Your task to perform on an android device: Open Google Chrome Image 0: 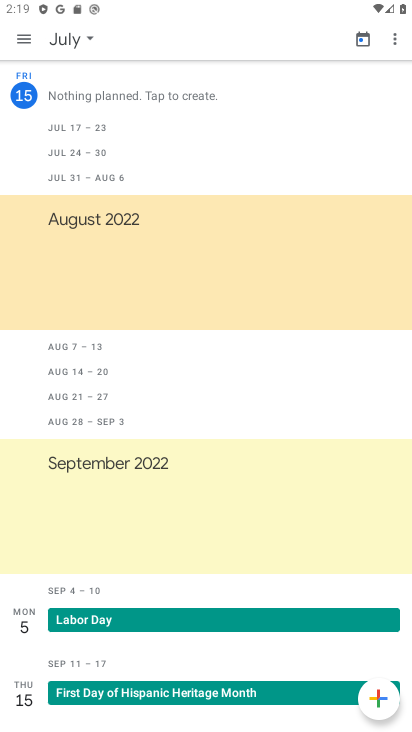
Step 0: press home button
Your task to perform on an android device: Open Google Chrome Image 1: 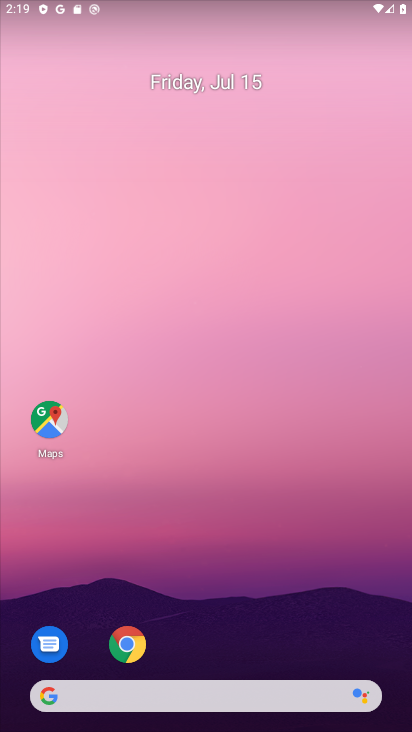
Step 1: drag from (286, 327) to (329, 112)
Your task to perform on an android device: Open Google Chrome Image 2: 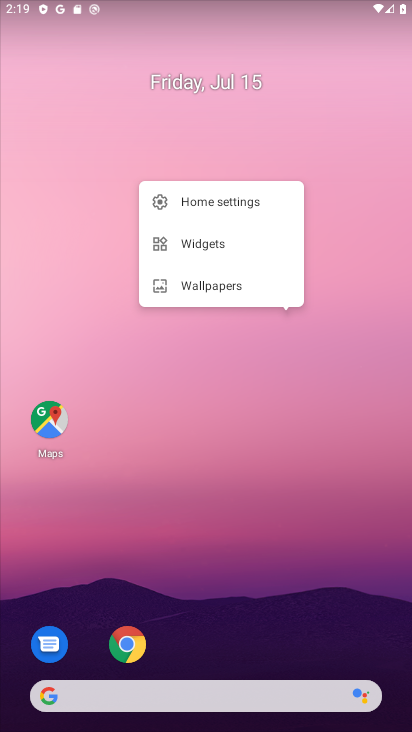
Step 2: drag from (288, 649) to (346, 224)
Your task to perform on an android device: Open Google Chrome Image 3: 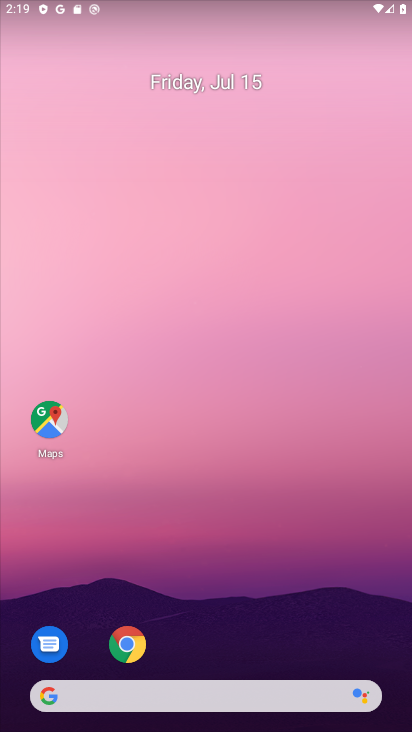
Step 3: drag from (200, 661) to (257, 157)
Your task to perform on an android device: Open Google Chrome Image 4: 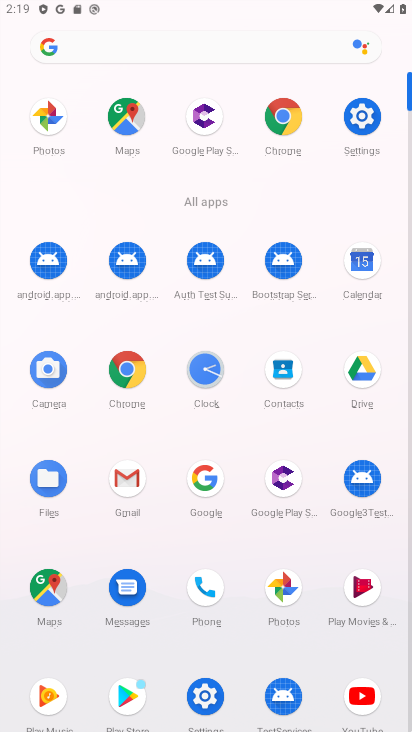
Step 4: click (134, 357)
Your task to perform on an android device: Open Google Chrome Image 5: 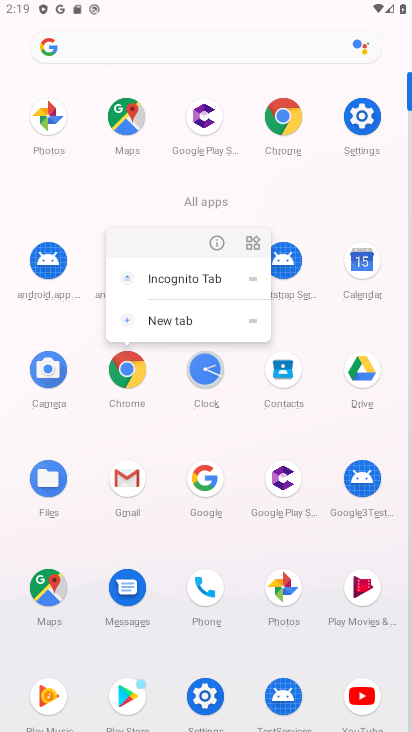
Step 5: click (134, 373)
Your task to perform on an android device: Open Google Chrome Image 6: 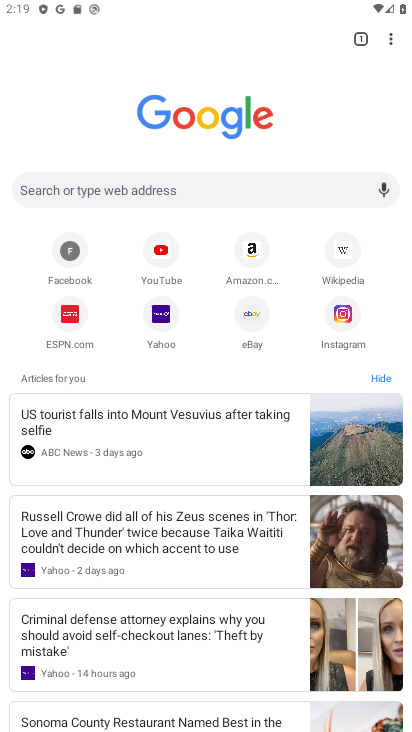
Step 6: task complete